Your task to perform on an android device: See recent photos Image 0: 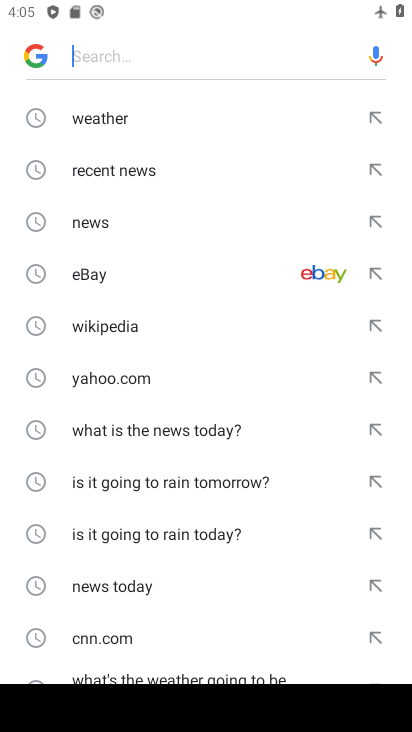
Step 0: press home button
Your task to perform on an android device: See recent photos Image 1: 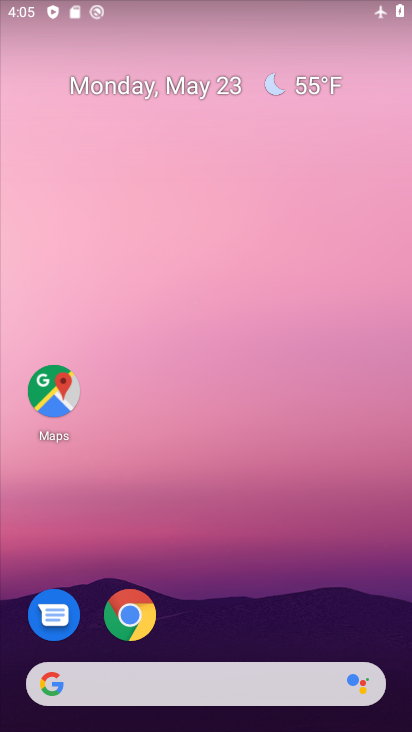
Step 1: drag from (356, 619) to (363, 290)
Your task to perform on an android device: See recent photos Image 2: 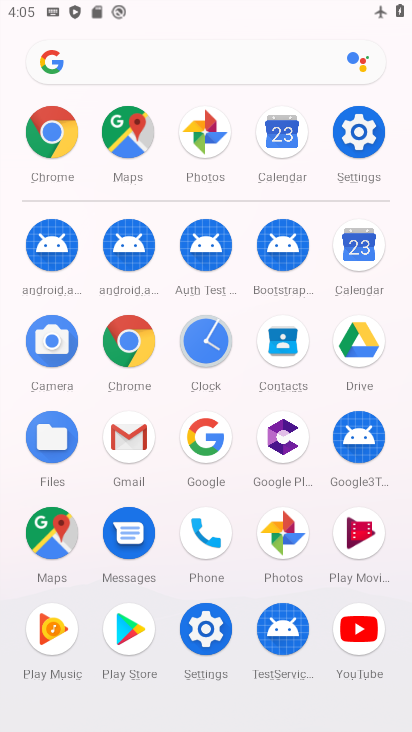
Step 2: click (289, 549)
Your task to perform on an android device: See recent photos Image 3: 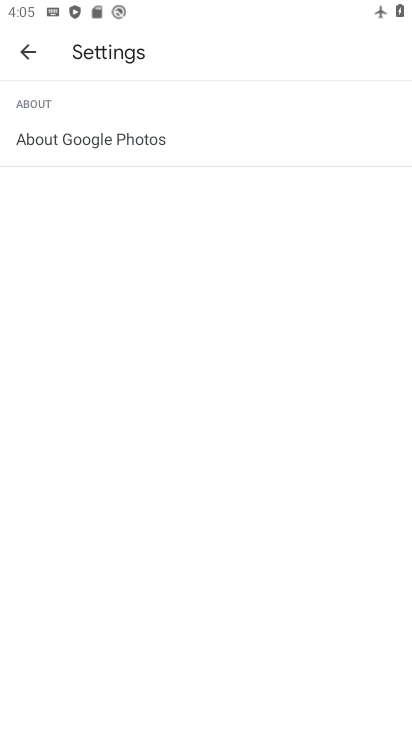
Step 3: click (27, 52)
Your task to perform on an android device: See recent photos Image 4: 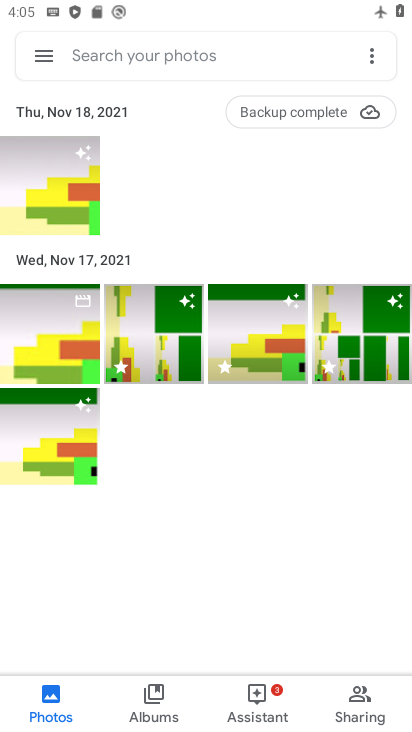
Step 4: click (66, 184)
Your task to perform on an android device: See recent photos Image 5: 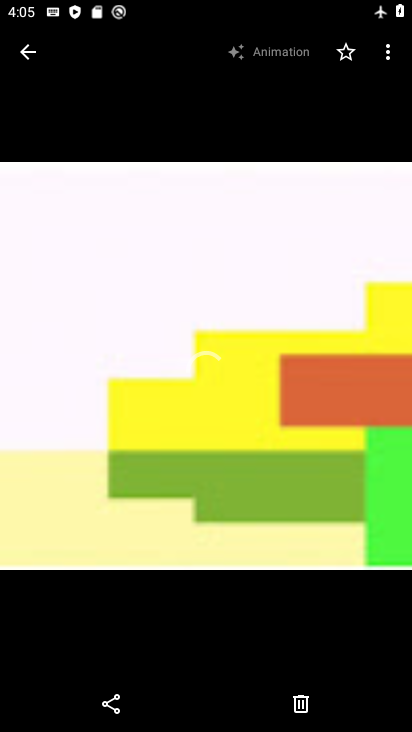
Step 5: task complete